Your task to perform on an android device: turn off location history Image 0: 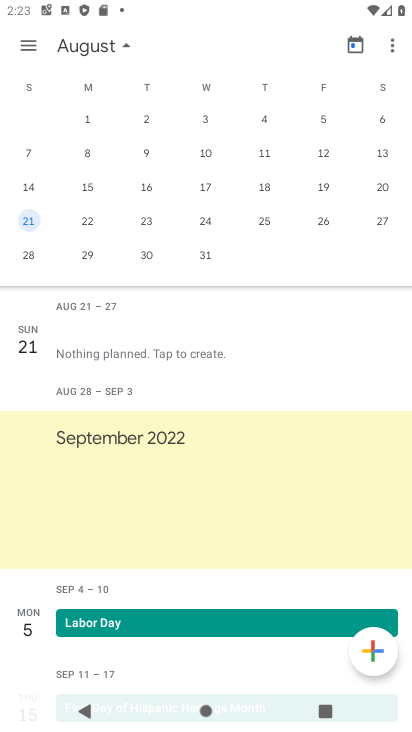
Step 0: press home button
Your task to perform on an android device: turn off location history Image 1: 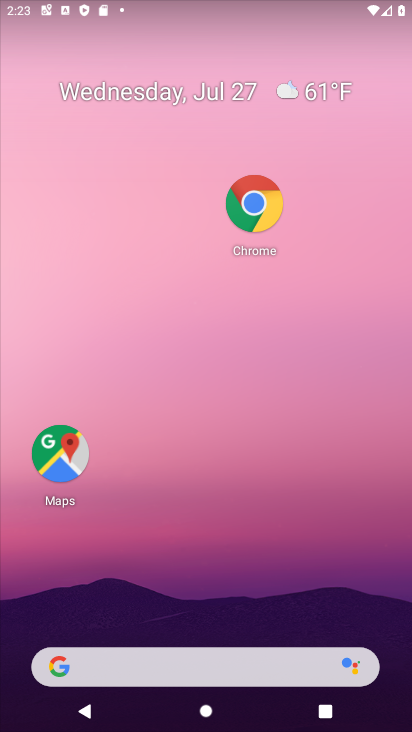
Step 1: drag from (205, 609) to (229, 102)
Your task to perform on an android device: turn off location history Image 2: 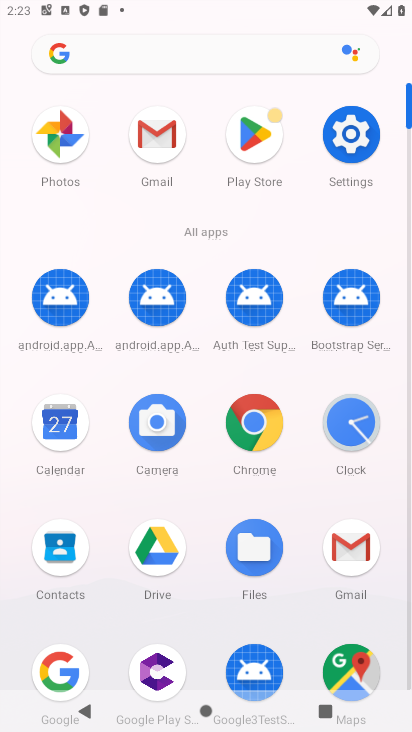
Step 2: click (358, 148)
Your task to perform on an android device: turn off location history Image 3: 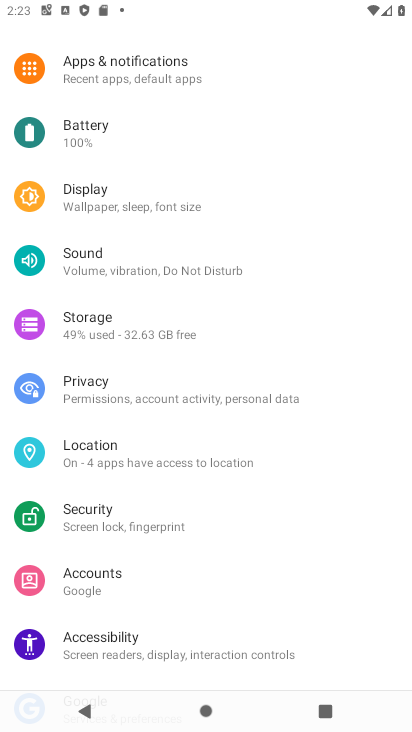
Step 3: click (126, 468)
Your task to perform on an android device: turn off location history Image 4: 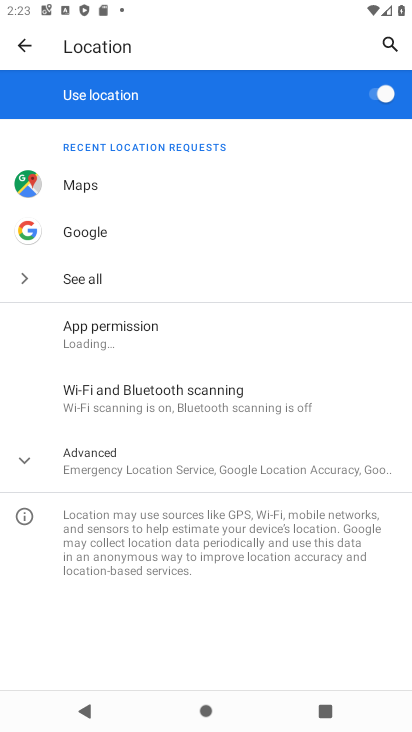
Step 4: click (151, 472)
Your task to perform on an android device: turn off location history Image 5: 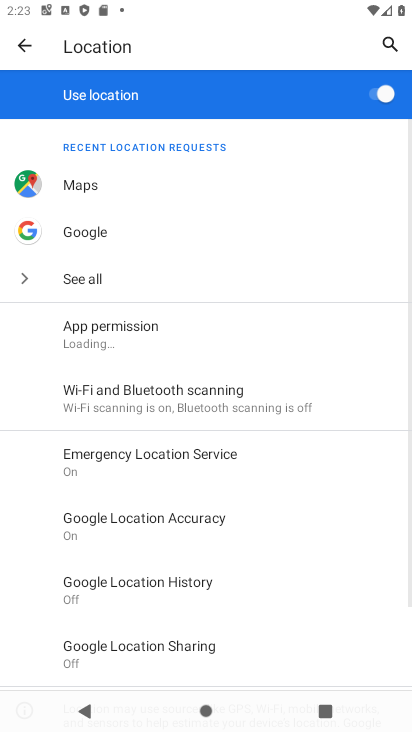
Step 5: click (213, 583)
Your task to perform on an android device: turn off location history Image 6: 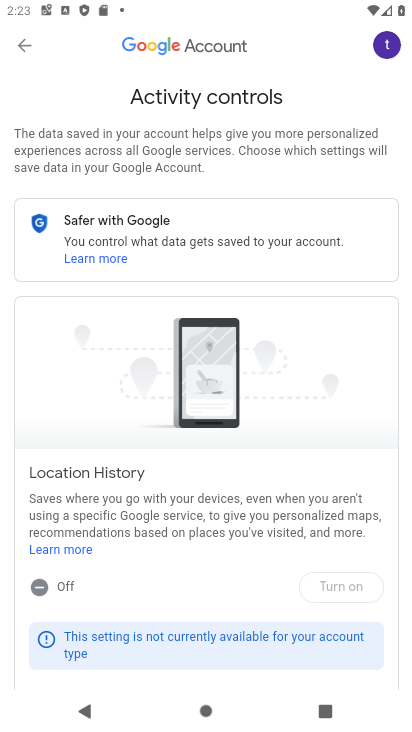
Step 6: drag from (249, 538) to (273, 354)
Your task to perform on an android device: turn off location history Image 7: 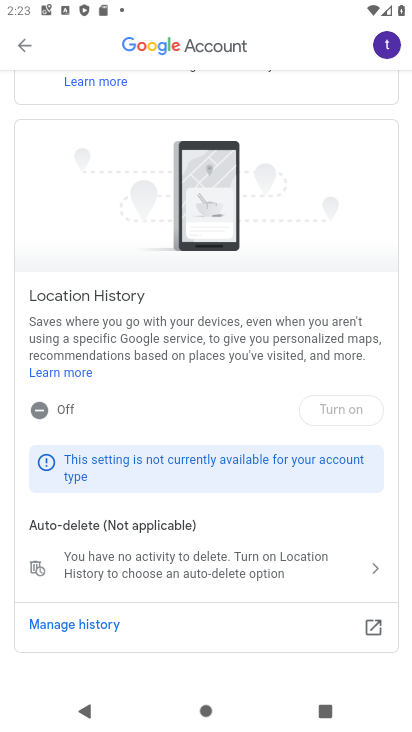
Step 7: click (67, 412)
Your task to perform on an android device: turn off location history Image 8: 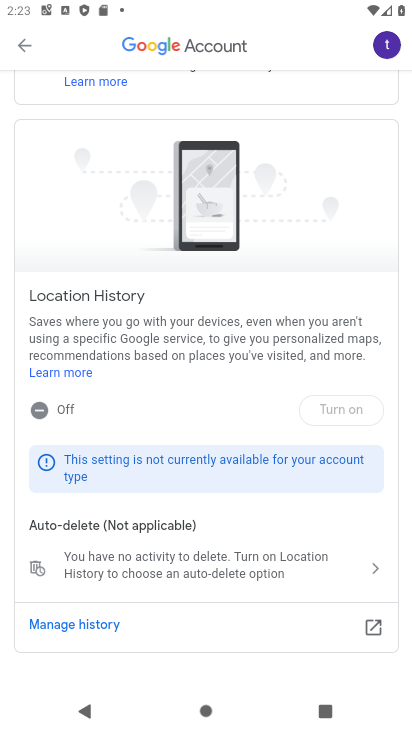
Step 8: task complete